Your task to perform on an android device: change text size in settings app Image 0: 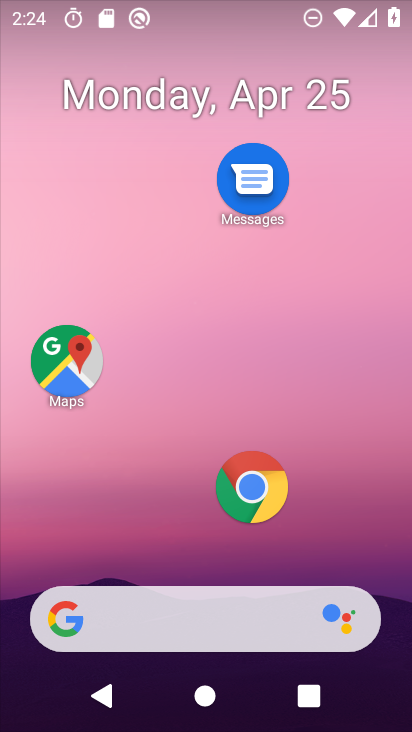
Step 0: drag from (211, 565) to (273, 58)
Your task to perform on an android device: change text size in settings app Image 1: 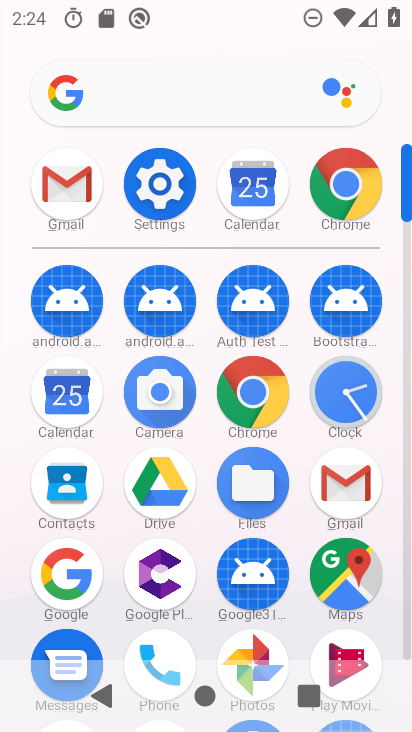
Step 1: drag from (191, 545) to (217, 119)
Your task to perform on an android device: change text size in settings app Image 2: 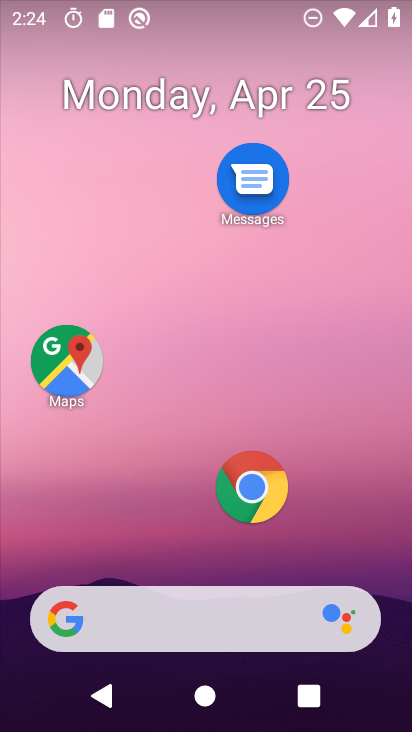
Step 2: drag from (204, 611) to (257, 68)
Your task to perform on an android device: change text size in settings app Image 3: 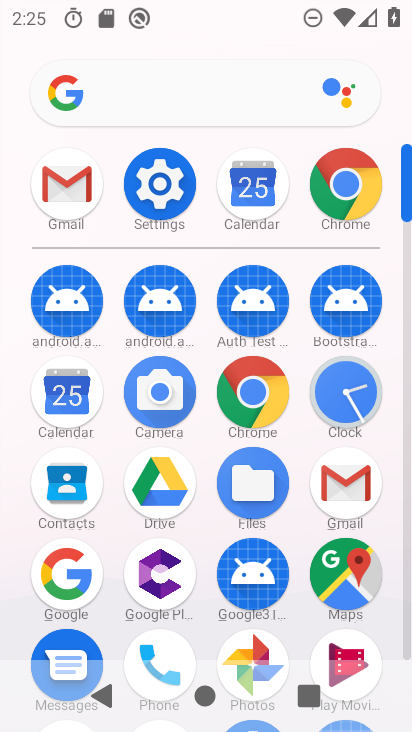
Step 3: drag from (289, 306) to (311, 150)
Your task to perform on an android device: change text size in settings app Image 4: 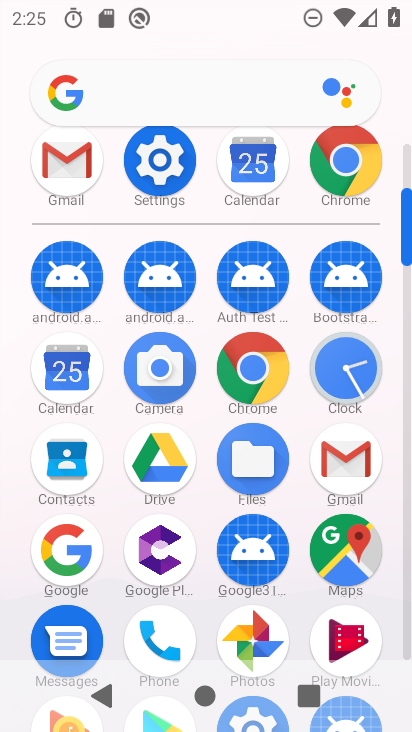
Step 4: drag from (291, 645) to (315, 219)
Your task to perform on an android device: change text size in settings app Image 5: 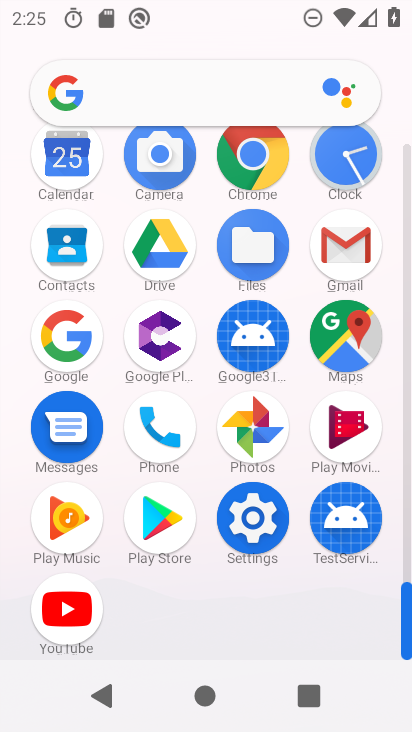
Step 5: click (266, 518)
Your task to perform on an android device: change text size in settings app Image 6: 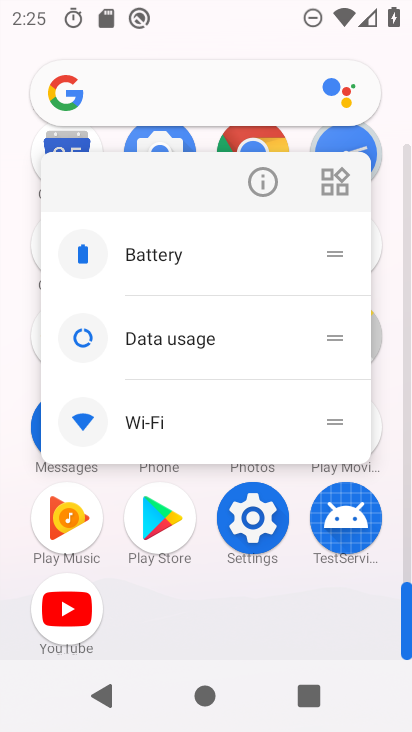
Step 6: click (259, 513)
Your task to perform on an android device: change text size in settings app Image 7: 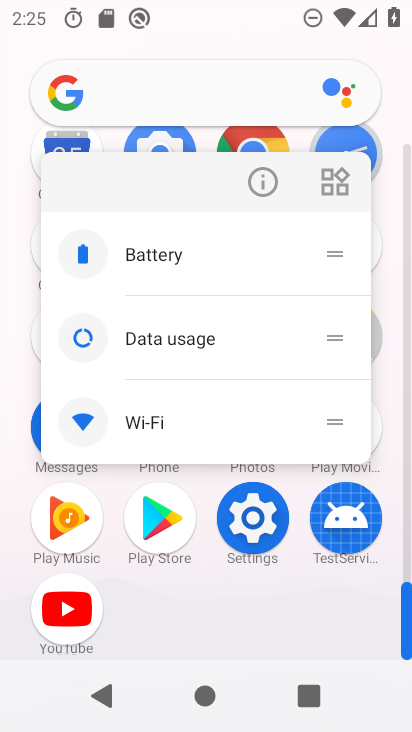
Step 7: click (259, 513)
Your task to perform on an android device: change text size in settings app Image 8: 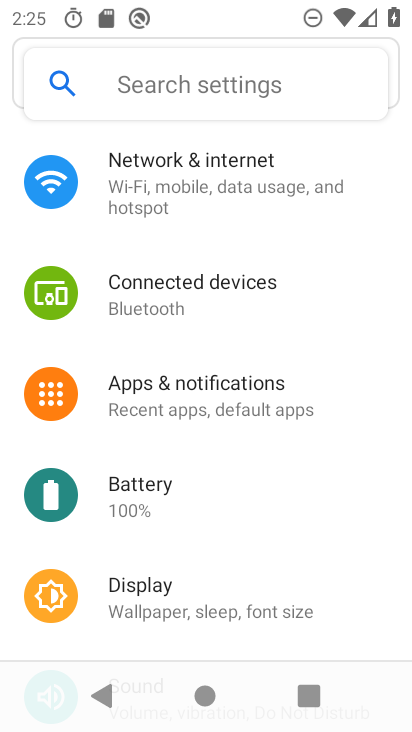
Step 8: drag from (194, 631) to (213, 61)
Your task to perform on an android device: change text size in settings app Image 9: 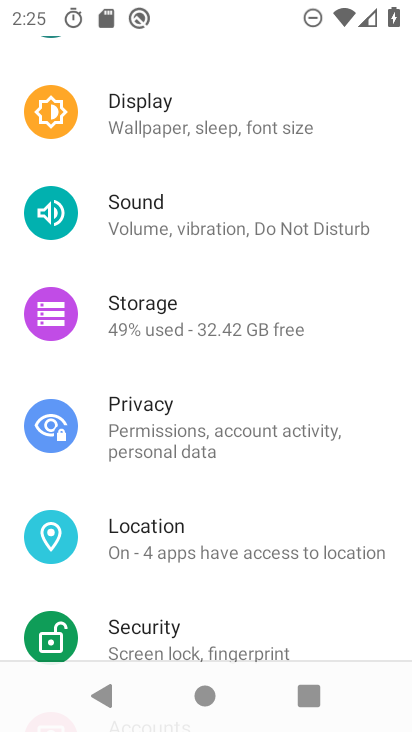
Step 9: drag from (225, 646) to (300, 109)
Your task to perform on an android device: change text size in settings app Image 10: 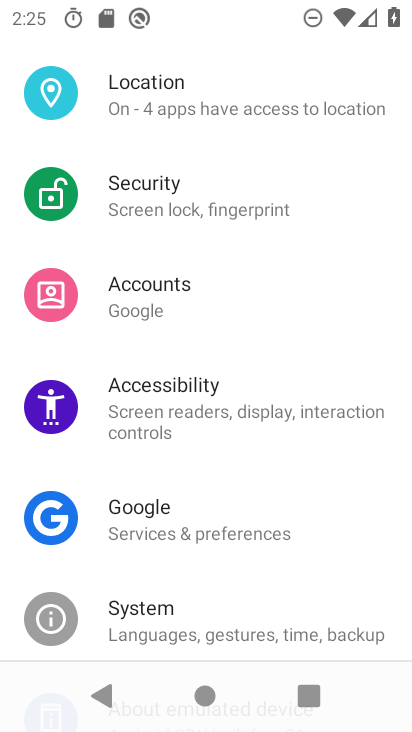
Step 10: drag from (239, 622) to (270, 117)
Your task to perform on an android device: change text size in settings app Image 11: 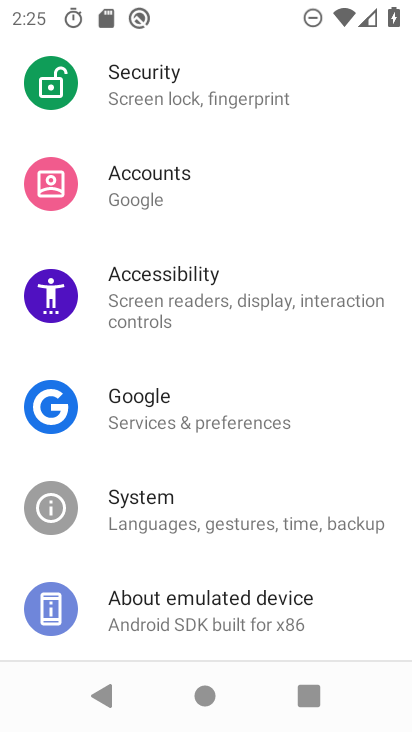
Step 11: click (185, 281)
Your task to perform on an android device: change text size in settings app Image 12: 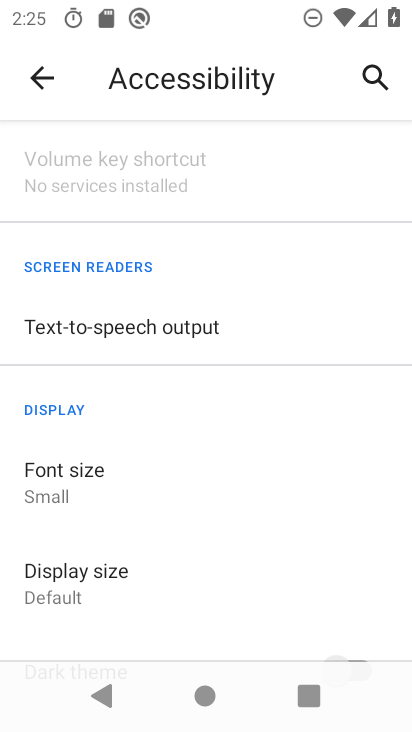
Step 12: click (75, 481)
Your task to perform on an android device: change text size in settings app Image 13: 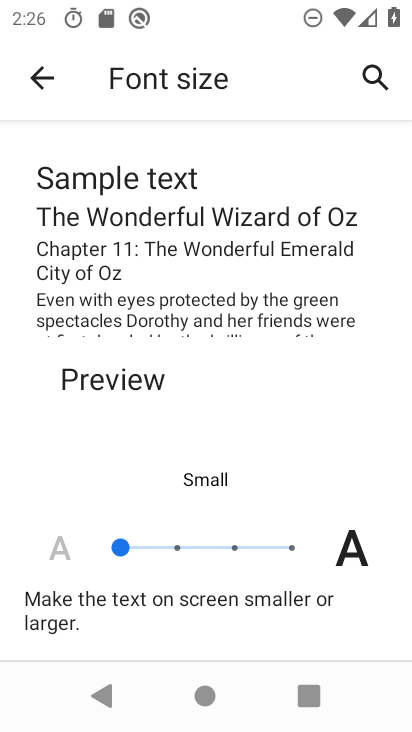
Step 13: click (149, 545)
Your task to perform on an android device: change text size in settings app Image 14: 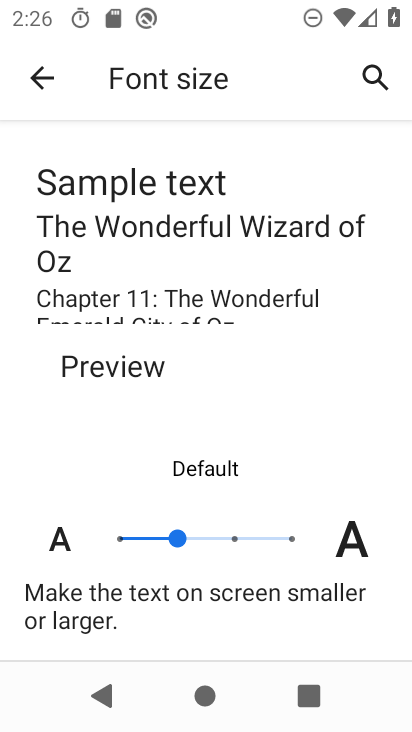
Step 14: task complete